Your task to perform on an android device: turn on data saver in the chrome app Image 0: 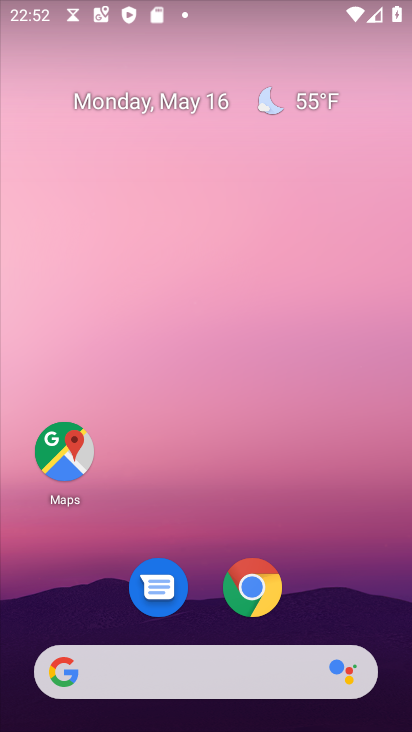
Step 0: drag from (325, 551) to (278, 70)
Your task to perform on an android device: turn on data saver in the chrome app Image 1: 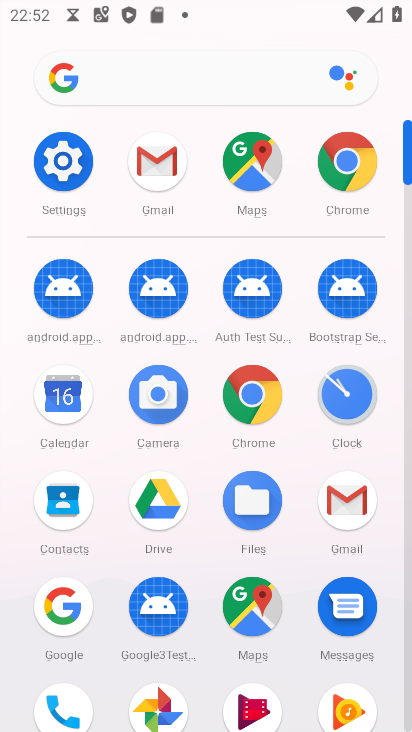
Step 1: drag from (17, 490) to (14, 211)
Your task to perform on an android device: turn on data saver in the chrome app Image 2: 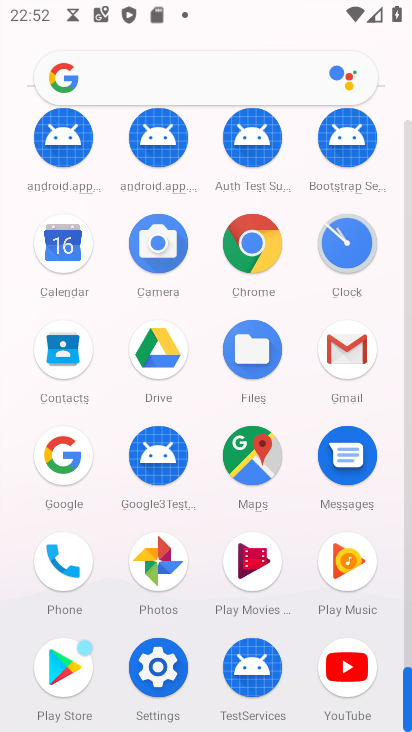
Step 2: click (251, 240)
Your task to perform on an android device: turn on data saver in the chrome app Image 3: 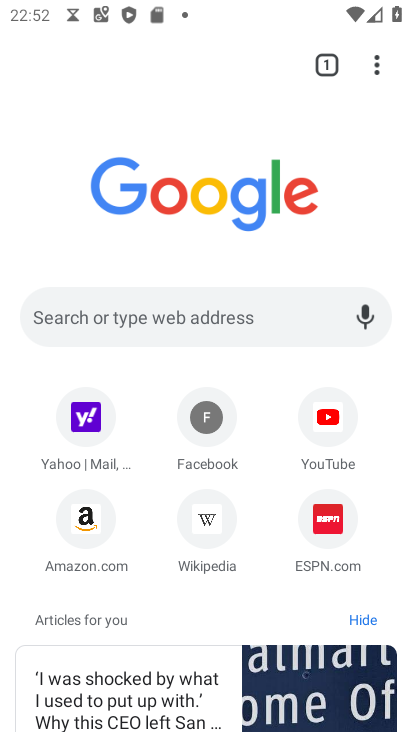
Step 3: drag from (375, 67) to (145, 543)
Your task to perform on an android device: turn on data saver in the chrome app Image 4: 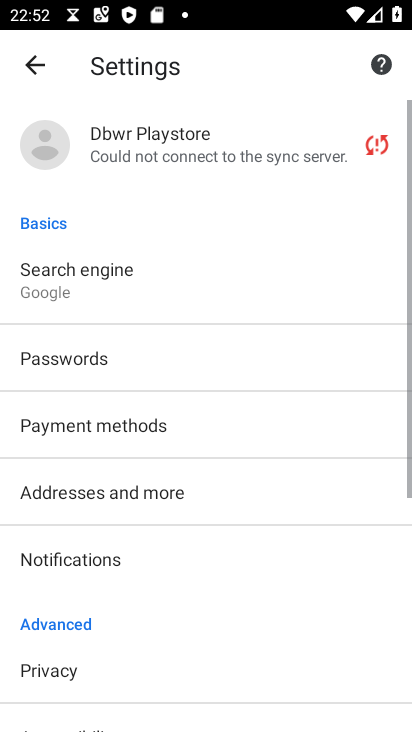
Step 4: drag from (199, 643) to (214, 212)
Your task to perform on an android device: turn on data saver in the chrome app Image 5: 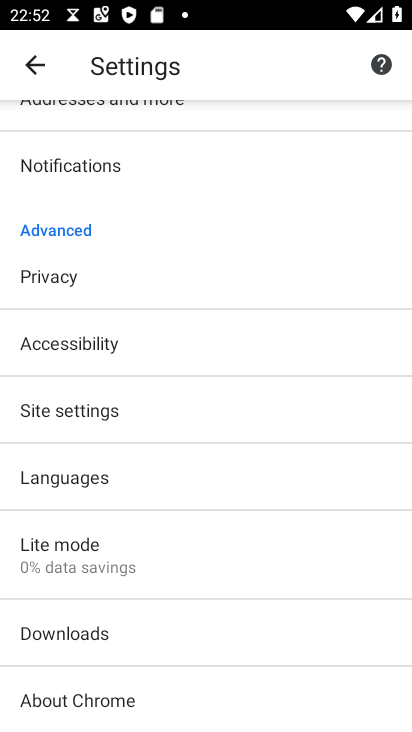
Step 5: click (158, 550)
Your task to perform on an android device: turn on data saver in the chrome app Image 6: 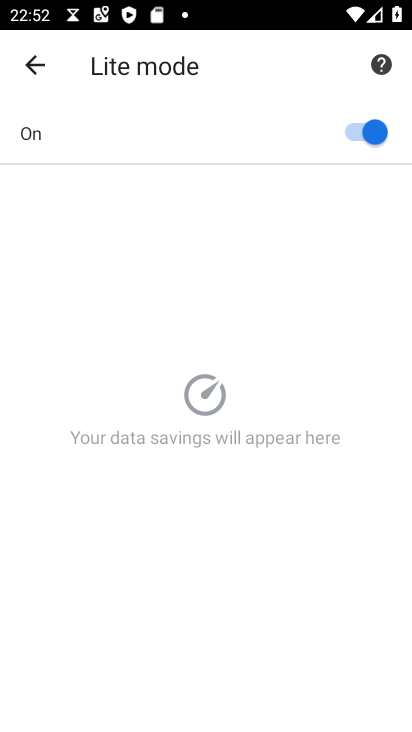
Step 6: task complete